Your task to perform on an android device: Go to Yahoo.com Image 0: 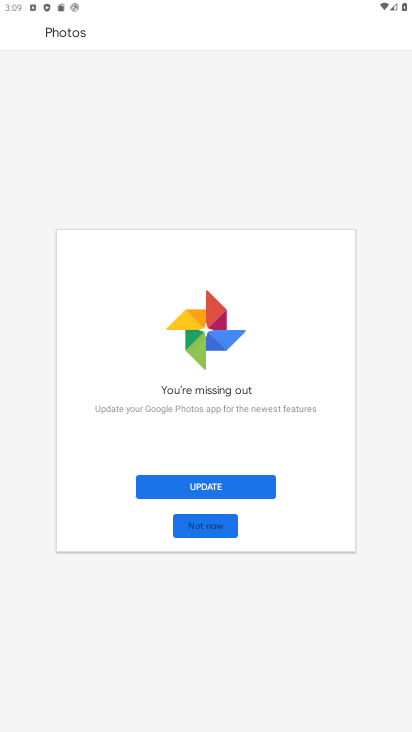
Step 0: press home button
Your task to perform on an android device: Go to Yahoo.com Image 1: 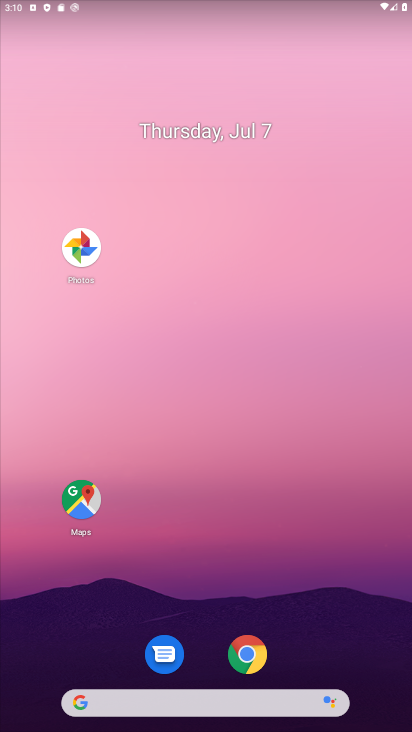
Step 1: click (252, 654)
Your task to perform on an android device: Go to Yahoo.com Image 2: 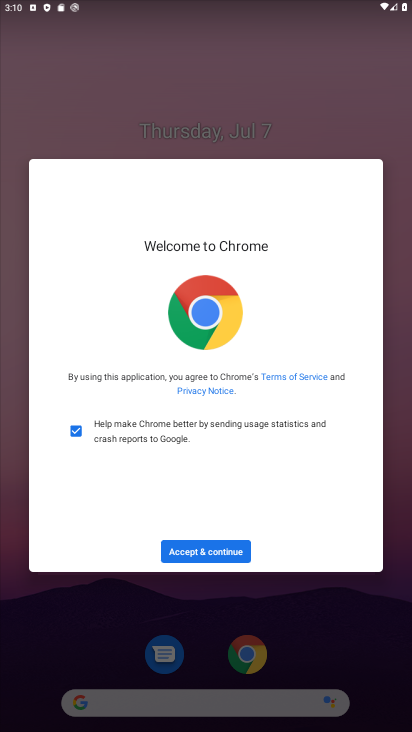
Step 2: click (198, 547)
Your task to perform on an android device: Go to Yahoo.com Image 3: 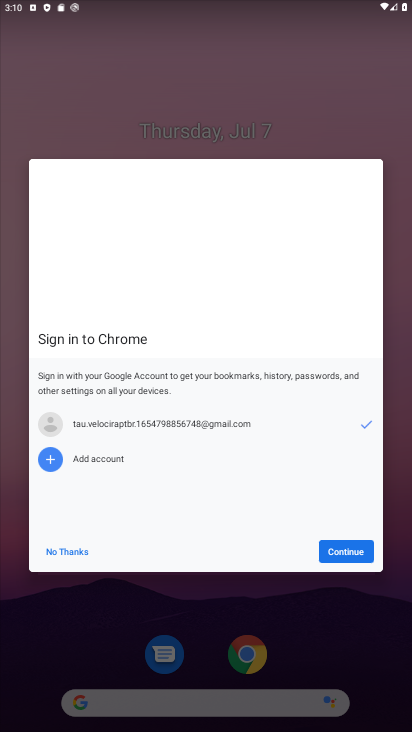
Step 3: click (334, 543)
Your task to perform on an android device: Go to Yahoo.com Image 4: 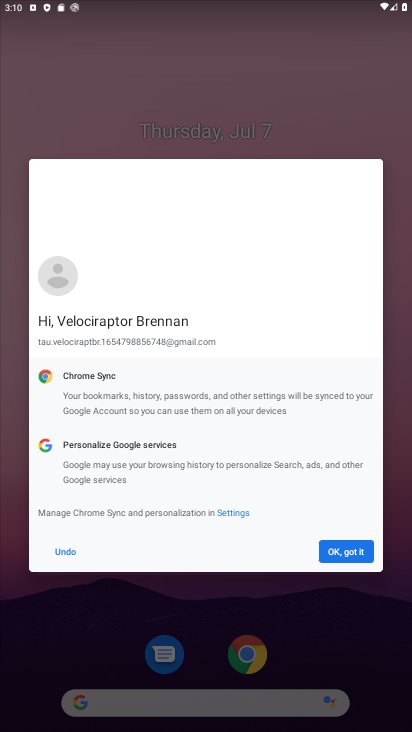
Step 4: click (346, 547)
Your task to perform on an android device: Go to Yahoo.com Image 5: 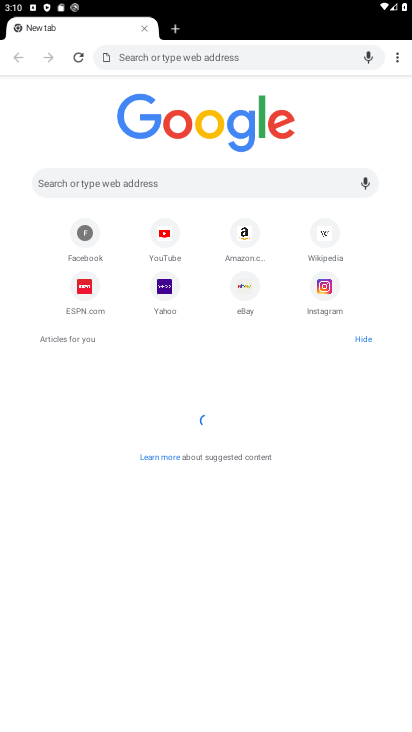
Step 5: click (169, 299)
Your task to perform on an android device: Go to Yahoo.com Image 6: 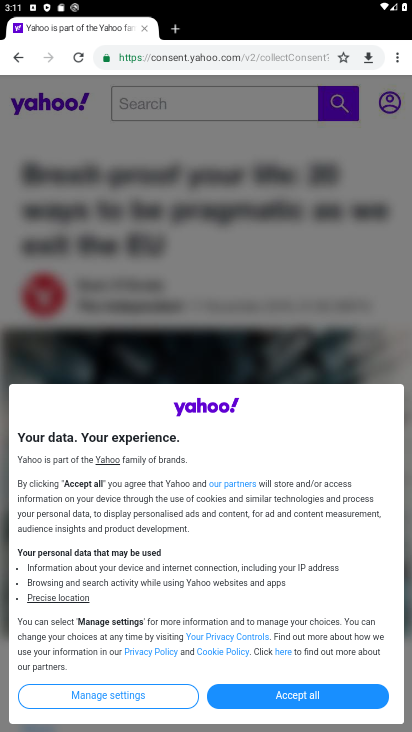
Step 6: task complete